Your task to perform on an android device: Open calendar and show me the third week of next month Image 0: 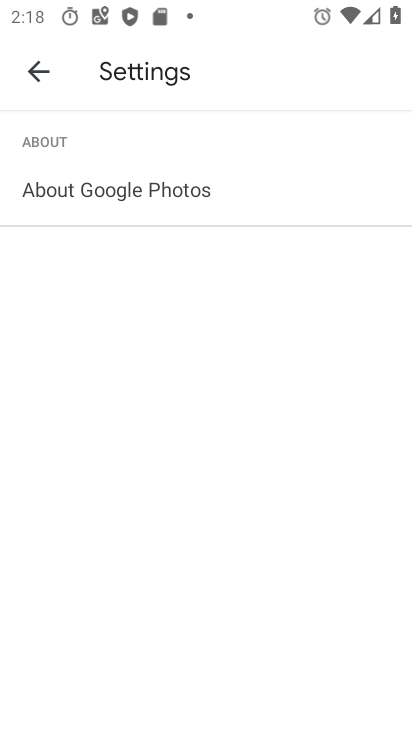
Step 0: press home button
Your task to perform on an android device: Open calendar and show me the third week of next month Image 1: 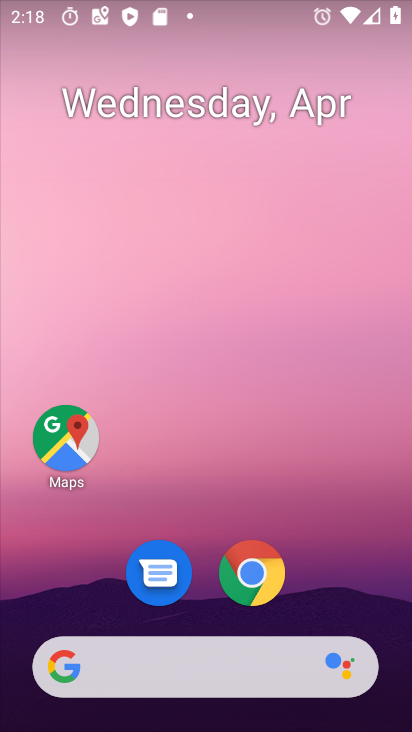
Step 1: drag from (336, 582) to (341, 157)
Your task to perform on an android device: Open calendar and show me the third week of next month Image 2: 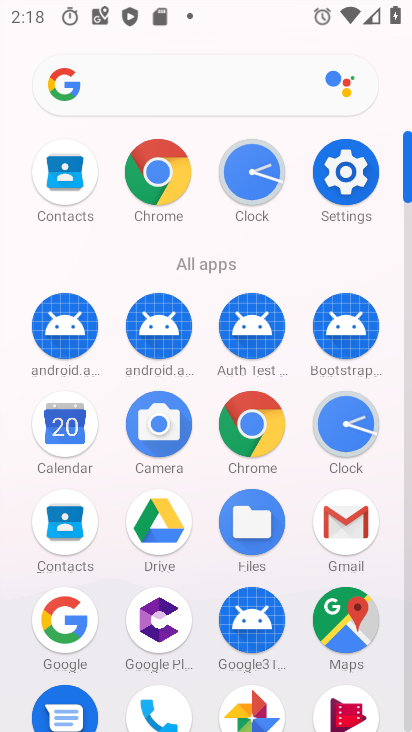
Step 2: click (54, 451)
Your task to perform on an android device: Open calendar and show me the third week of next month Image 3: 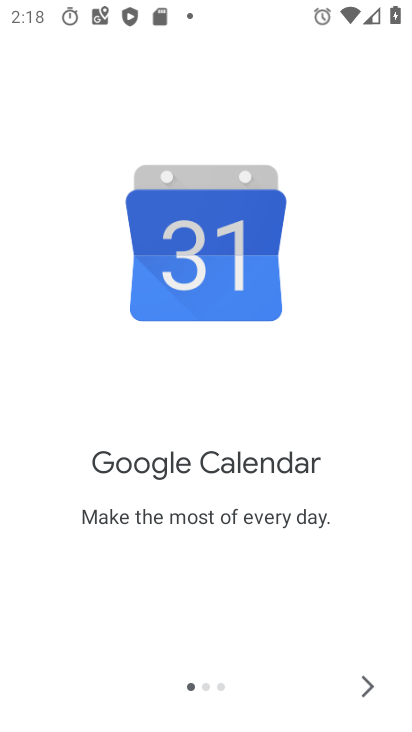
Step 3: click (373, 680)
Your task to perform on an android device: Open calendar and show me the third week of next month Image 4: 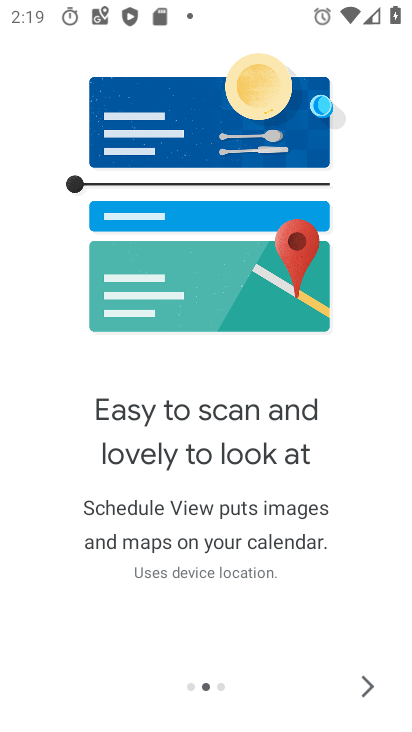
Step 4: click (373, 682)
Your task to perform on an android device: Open calendar and show me the third week of next month Image 5: 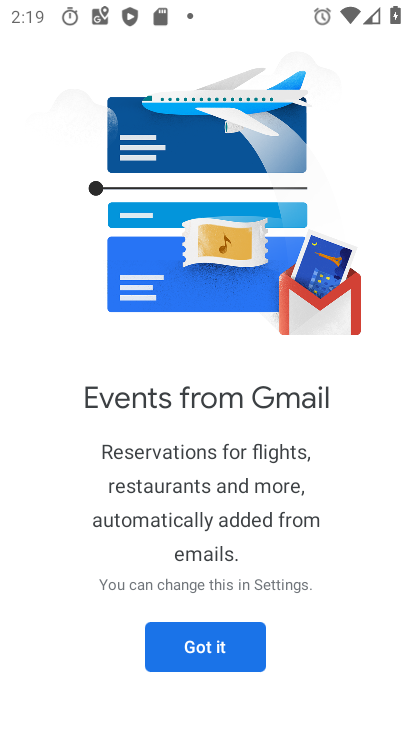
Step 5: click (216, 658)
Your task to perform on an android device: Open calendar and show me the third week of next month Image 6: 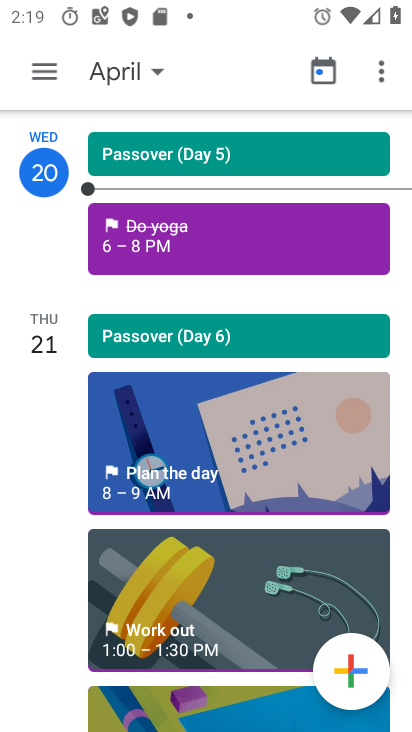
Step 6: click (163, 67)
Your task to perform on an android device: Open calendar and show me the third week of next month Image 7: 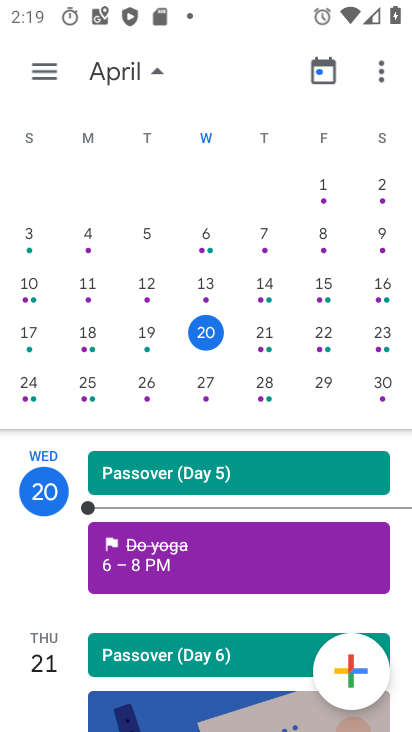
Step 7: drag from (386, 315) to (15, 308)
Your task to perform on an android device: Open calendar and show me the third week of next month Image 8: 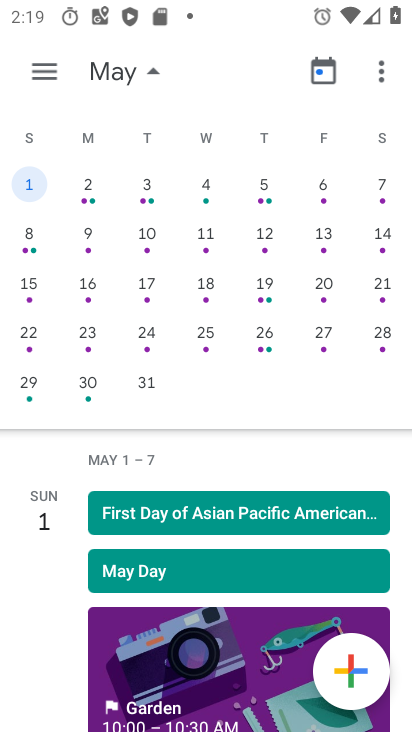
Step 8: click (139, 285)
Your task to perform on an android device: Open calendar and show me the third week of next month Image 9: 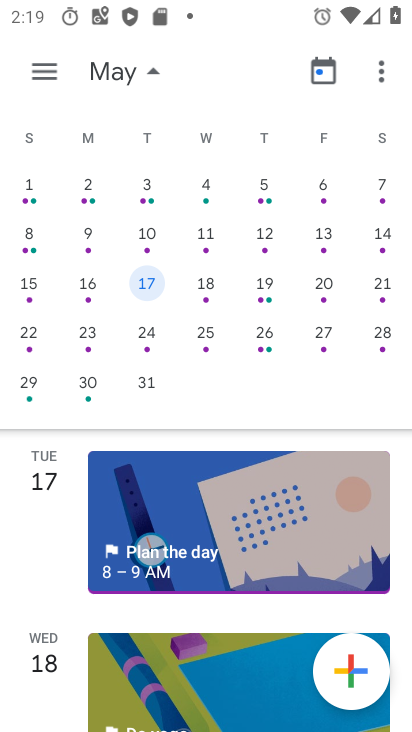
Step 9: task complete